Your task to perform on an android device: Open location settings Image 0: 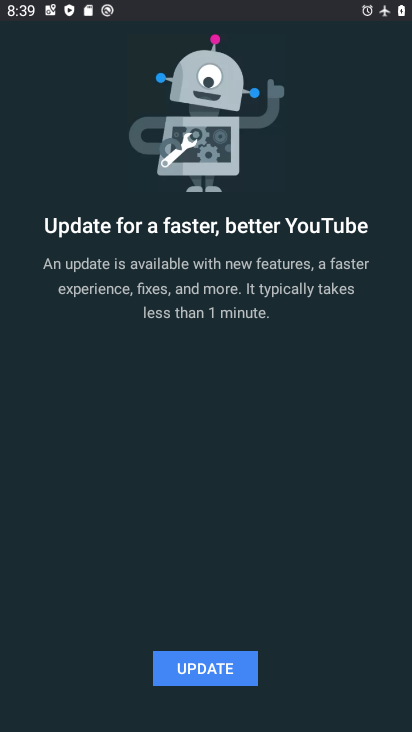
Step 0: press home button
Your task to perform on an android device: Open location settings Image 1: 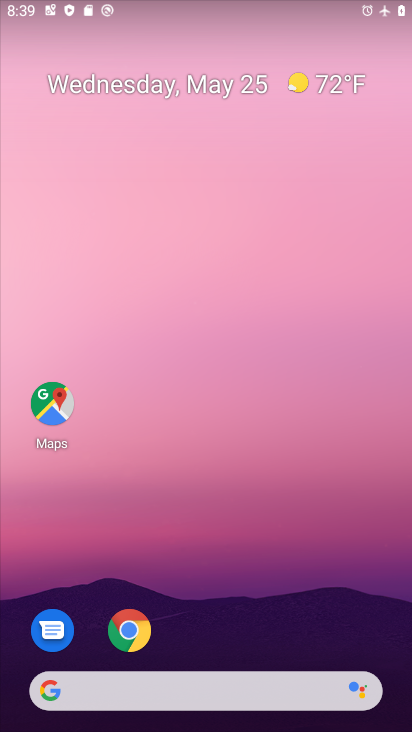
Step 1: drag from (247, 625) to (260, 217)
Your task to perform on an android device: Open location settings Image 2: 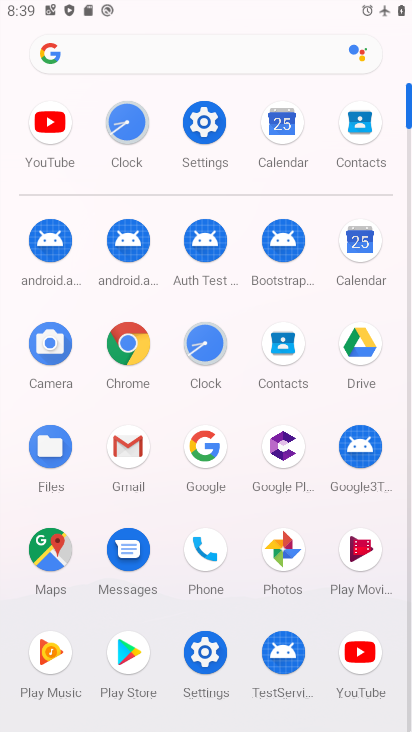
Step 2: click (212, 104)
Your task to perform on an android device: Open location settings Image 3: 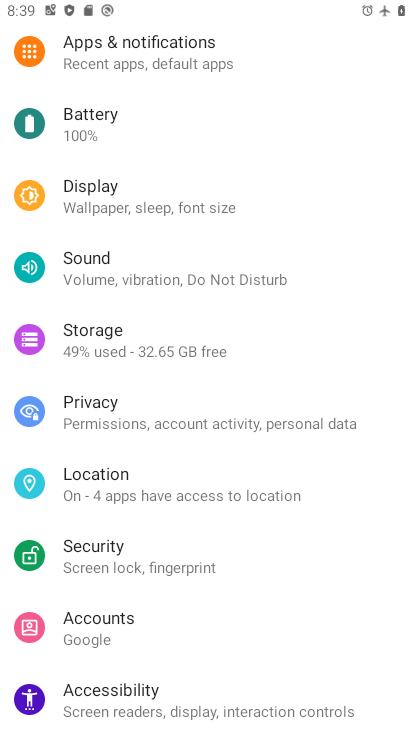
Step 3: click (130, 468)
Your task to perform on an android device: Open location settings Image 4: 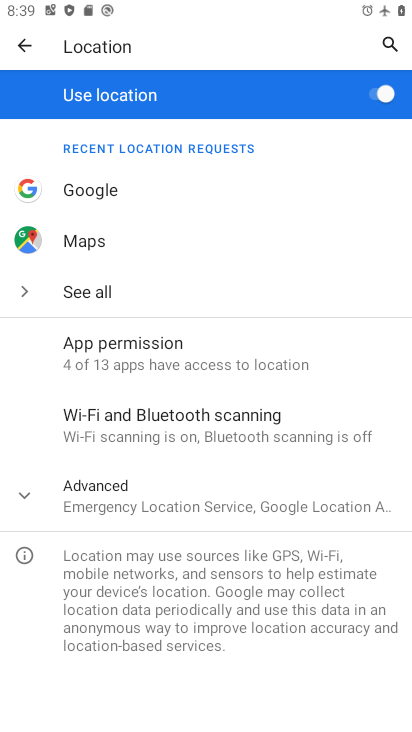
Step 4: task complete